Your task to perform on an android device: turn off data saver in the chrome app Image 0: 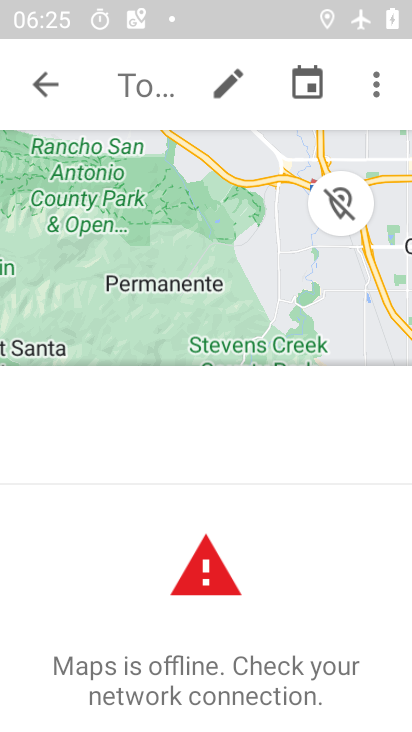
Step 0: press home button
Your task to perform on an android device: turn off data saver in the chrome app Image 1: 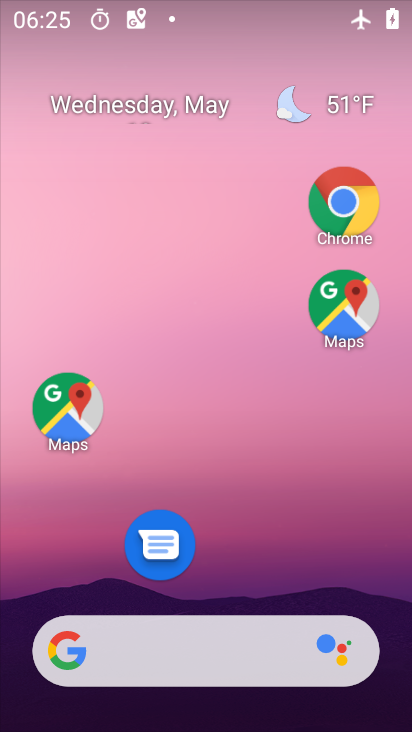
Step 1: click (349, 201)
Your task to perform on an android device: turn off data saver in the chrome app Image 2: 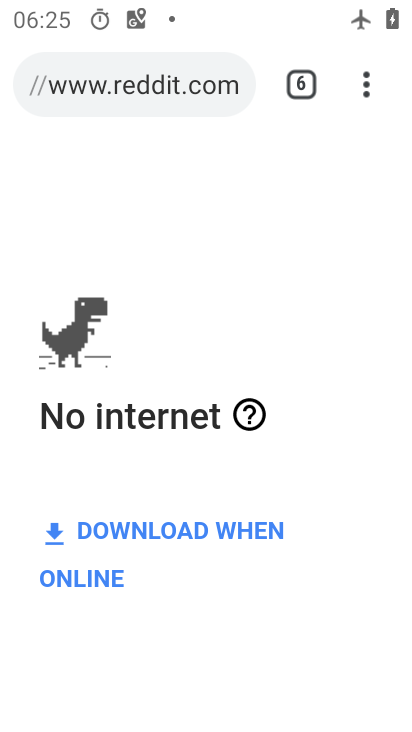
Step 2: click (366, 96)
Your task to perform on an android device: turn off data saver in the chrome app Image 3: 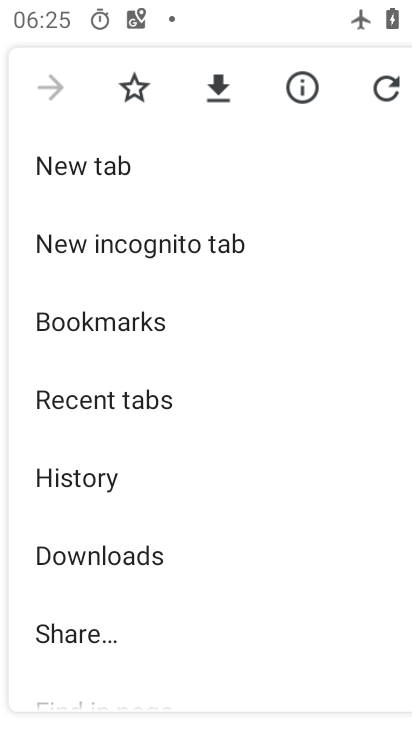
Step 3: drag from (105, 621) to (99, 239)
Your task to perform on an android device: turn off data saver in the chrome app Image 4: 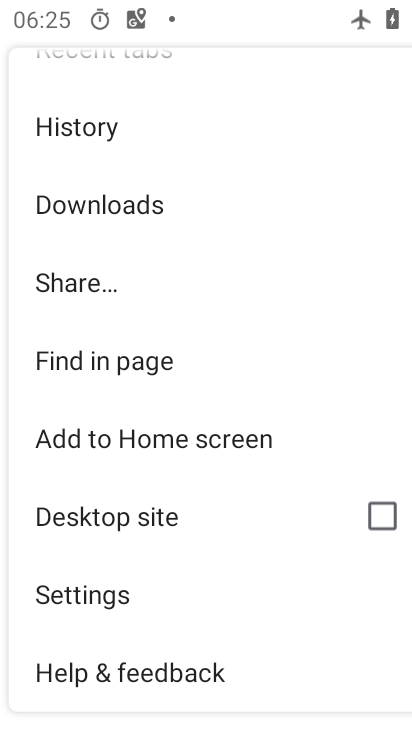
Step 4: click (86, 592)
Your task to perform on an android device: turn off data saver in the chrome app Image 5: 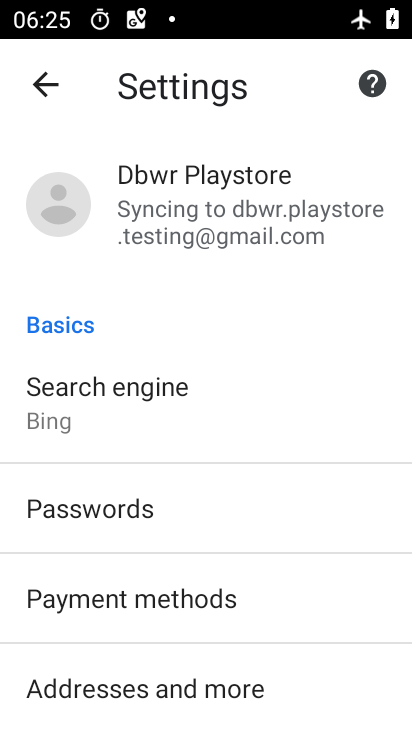
Step 5: drag from (123, 618) to (132, 190)
Your task to perform on an android device: turn off data saver in the chrome app Image 6: 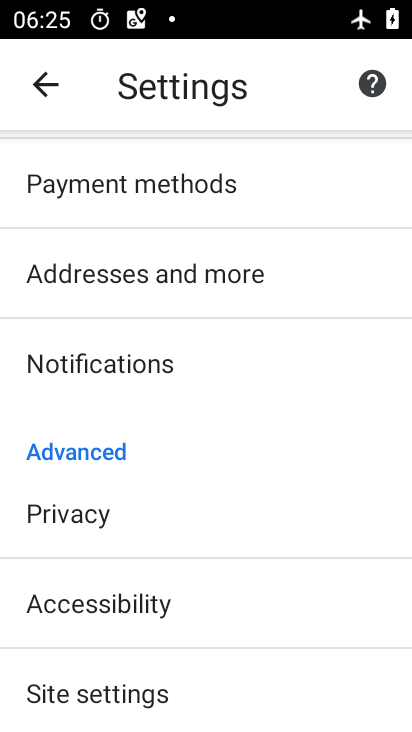
Step 6: drag from (112, 683) to (121, 328)
Your task to perform on an android device: turn off data saver in the chrome app Image 7: 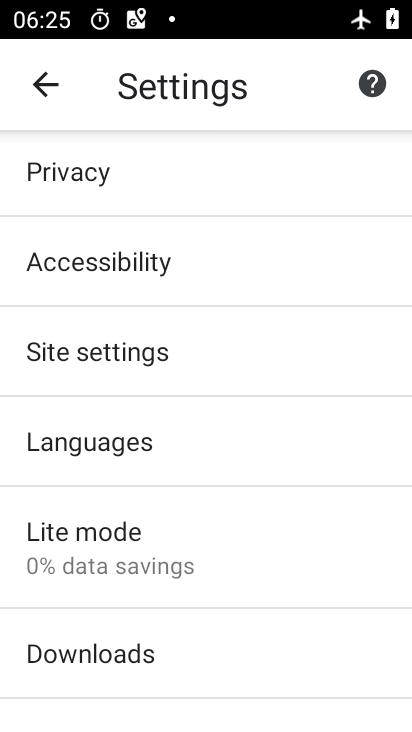
Step 7: click (101, 552)
Your task to perform on an android device: turn off data saver in the chrome app Image 8: 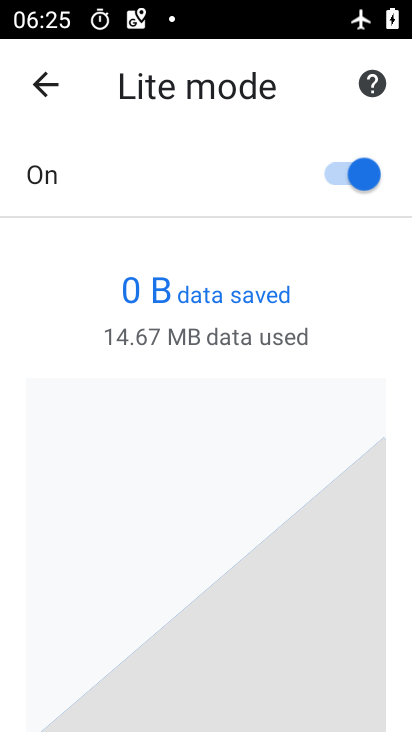
Step 8: click (336, 179)
Your task to perform on an android device: turn off data saver in the chrome app Image 9: 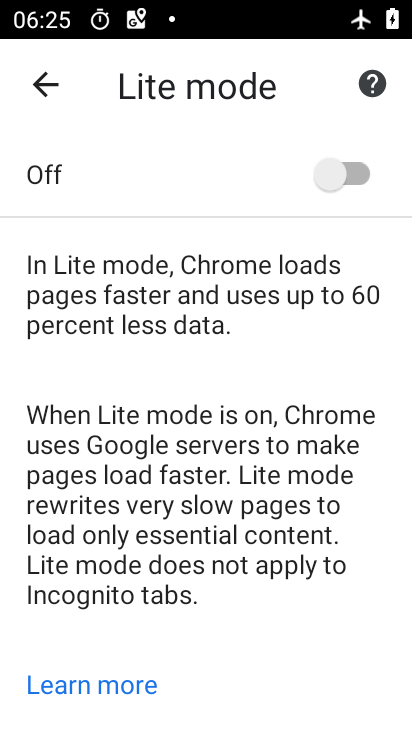
Step 9: task complete